Your task to perform on an android device: set an alarm Image 0: 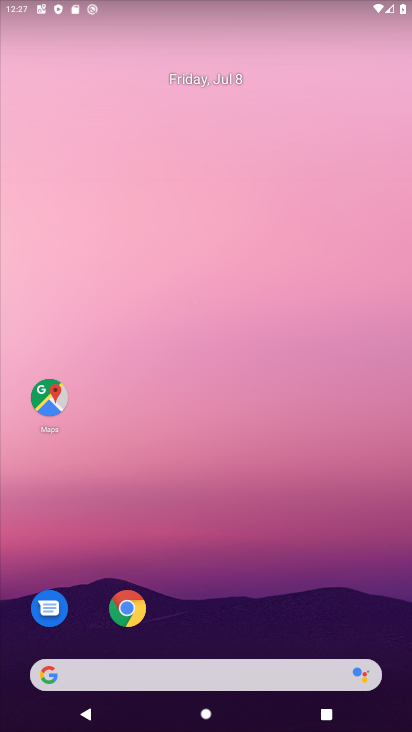
Step 0: drag from (52, 677) to (320, 19)
Your task to perform on an android device: set an alarm Image 1: 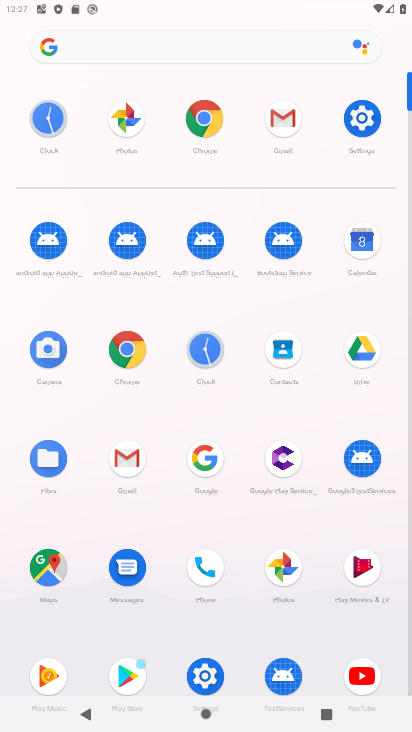
Step 1: click (198, 350)
Your task to perform on an android device: set an alarm Image 2: 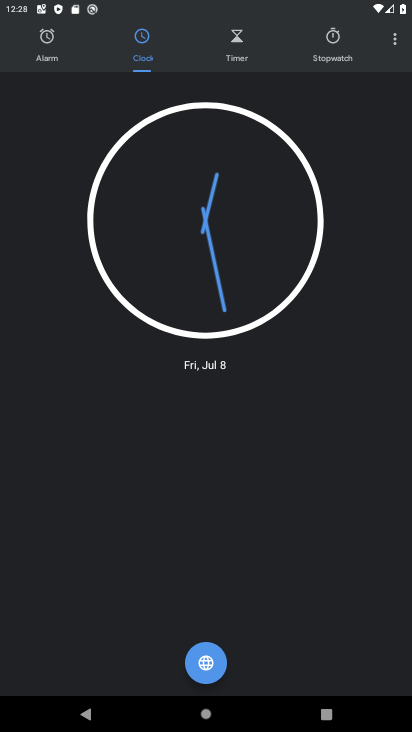
Step 2: click (55, 41)
Your task to perform on an android device: set an alarm Image 3: 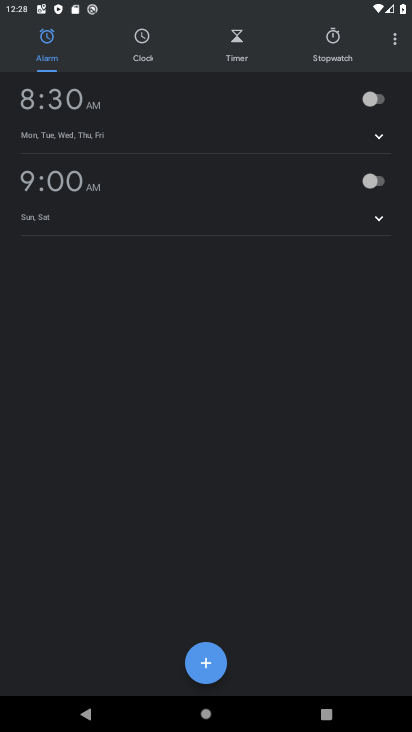
Step 3: click (366, 95)
Your task to perform on an android device: set an alarm Image 4: 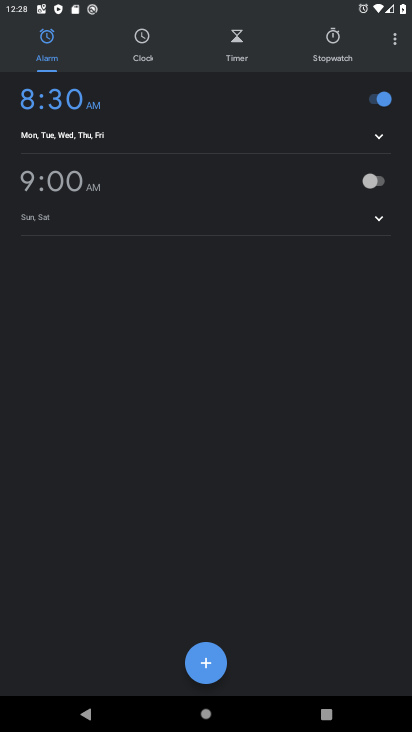
Step 4: task complete